Your task to perform on an android device: Go to calendar. Show me events next week Image 0: 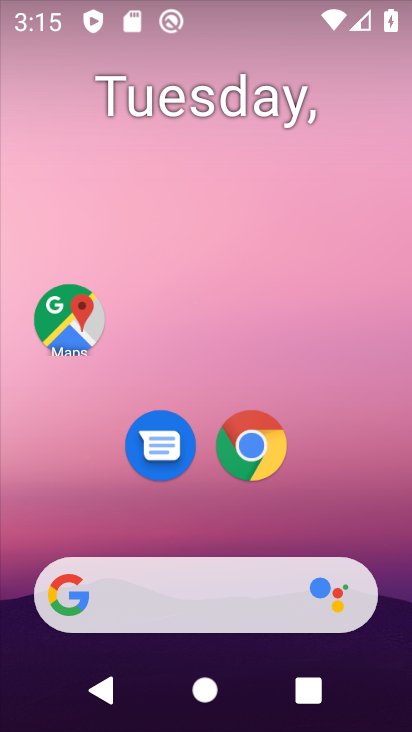
Step 0: press home button
Your task to perform on an android device: Go to calendar. Show me events next week Image 1: 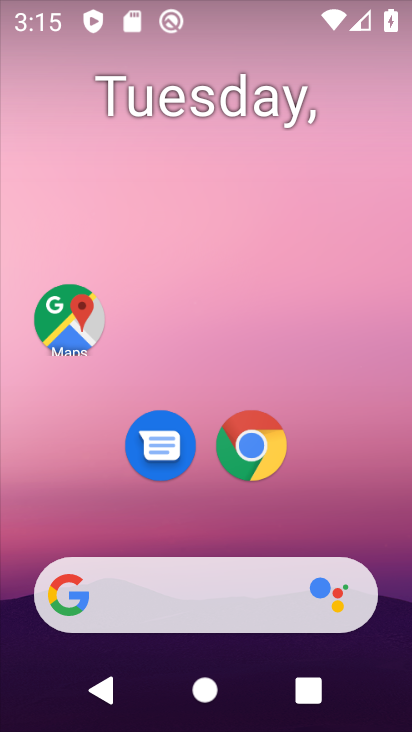
Step 1: drag from (342, 513) to (330, 98)
Your task to perform on an android device: Go to calendar. Show me events next week Image 2: 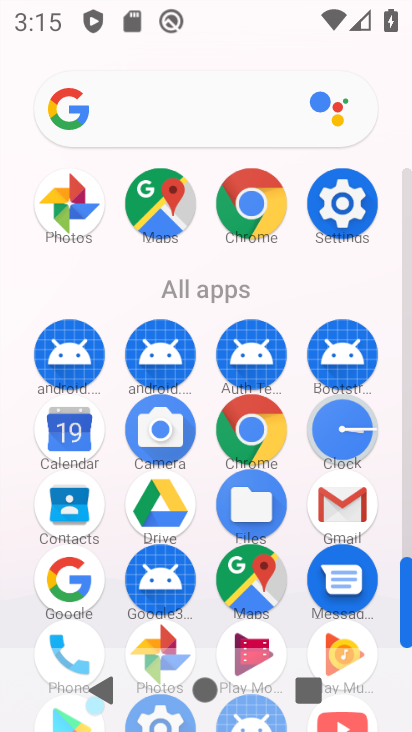
Step 2: click (69, 430)
Your task to perform on an android device: Go to calendar. Show me events next week Image 3: 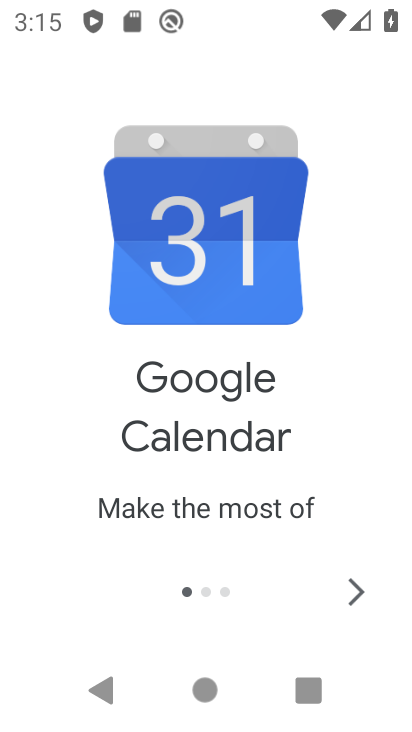
Step 3: click (351, 591)
Your task to perform on an android device: Go to calendar. Show me events next week Image 4: 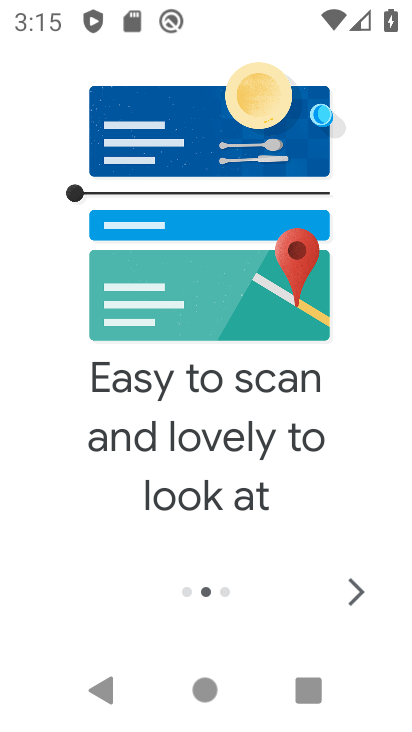
Step 4: click (351, 591)
Your task to perform on an android device: Go to calendar. Show me events next week Image 5: 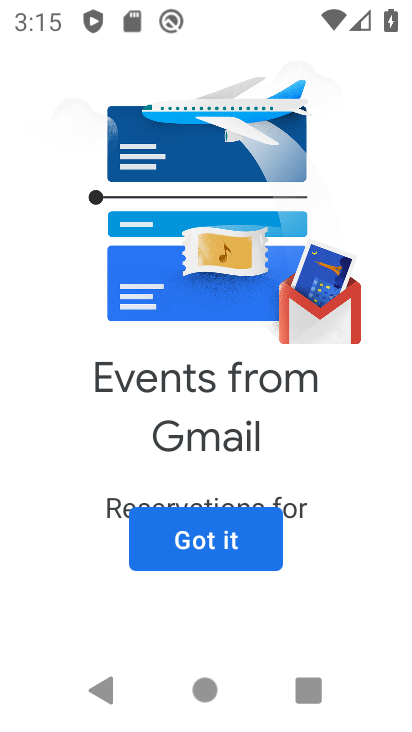
Step 5: click (268, 559)
Your task to perform on an android device: Go to calendar. Show me events next week Image 6: 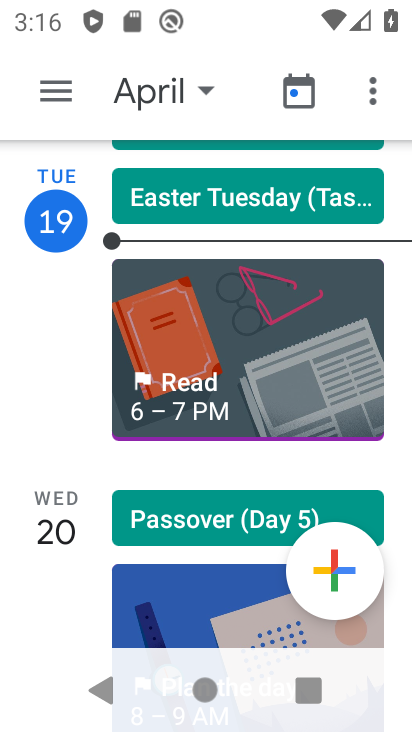
Step 6: click (175, 105)
Your task to perform on an android device: Go to calendar. Show me events next week Image 7: 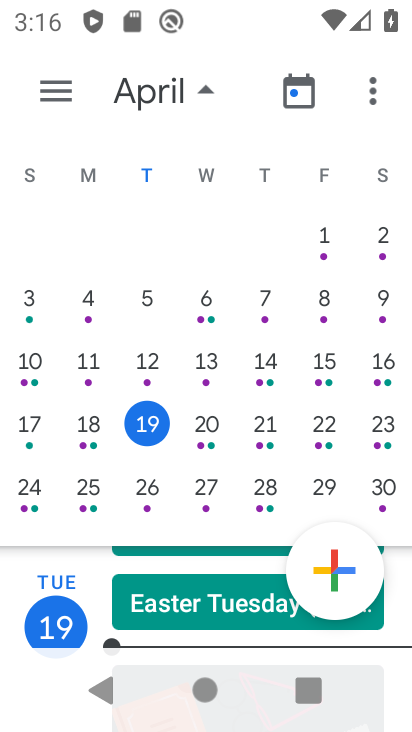
Step 7: click (37, 501)
Your task to perform on an android device: Go to calendar. Show me events next week Image 8: 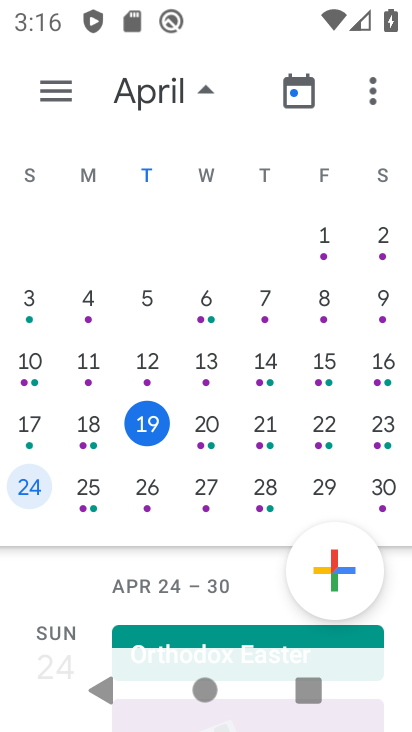
Step 8: click (81, 500)
Your task to perform on an android device: Go to calendar. Show me events next week Image 9: 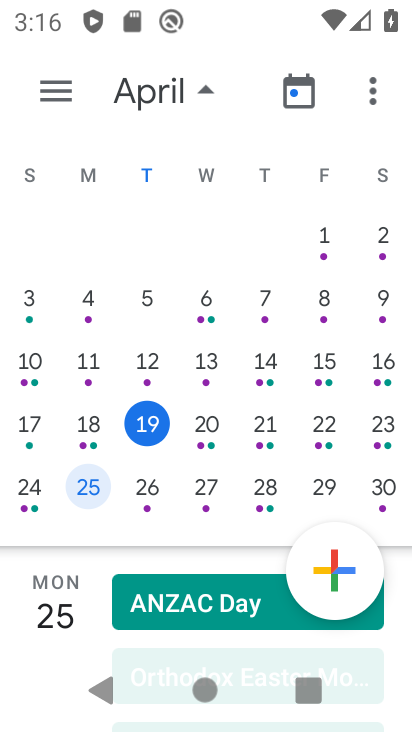
Step 9: click (139, 503)
Your task to perform on an android device: Go to calendar. Show me events next week Image 10: 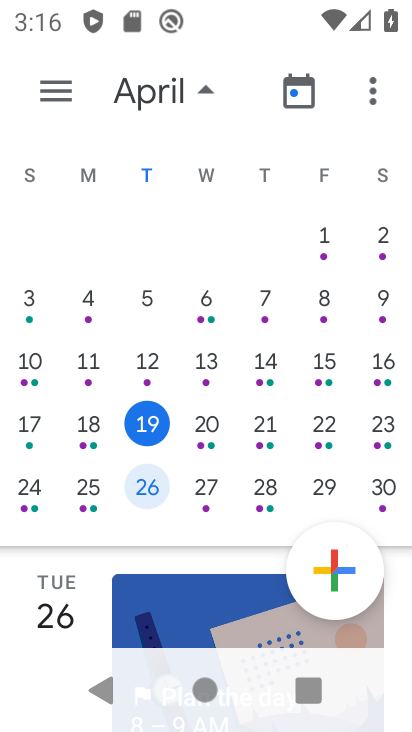
Step 10: click (202, 509)
Your task to perform on an android device: Go to calendar. Show me events next week Image 11: 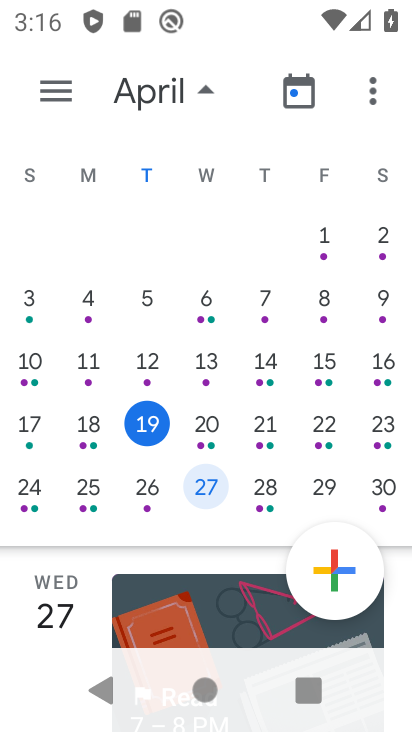
Step 11: click (261, 502)
Your task to perform on an android device: Go to calendar. Show me events next week Image 12: 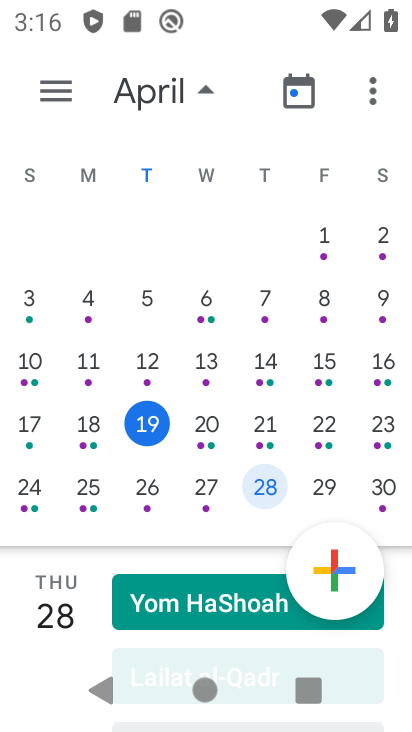
Step 12: click (347, 484)
Your task to perform on an android device: Go to calendar. Show me events next week Image 13: 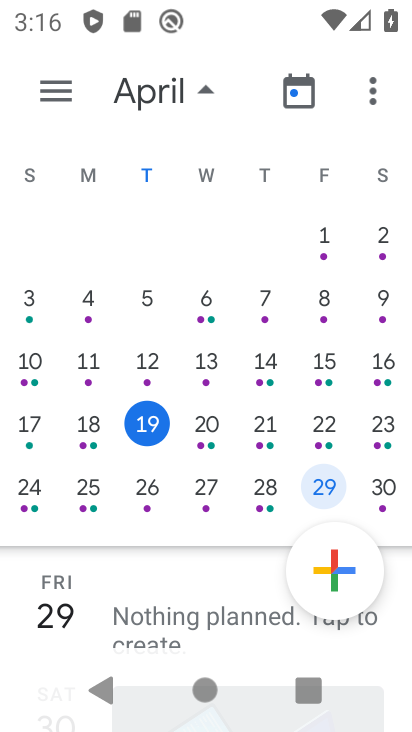
Step 13: click (370, 497)
Your task to perform on an android device: Go to calendar. Show me events next week Image 14: 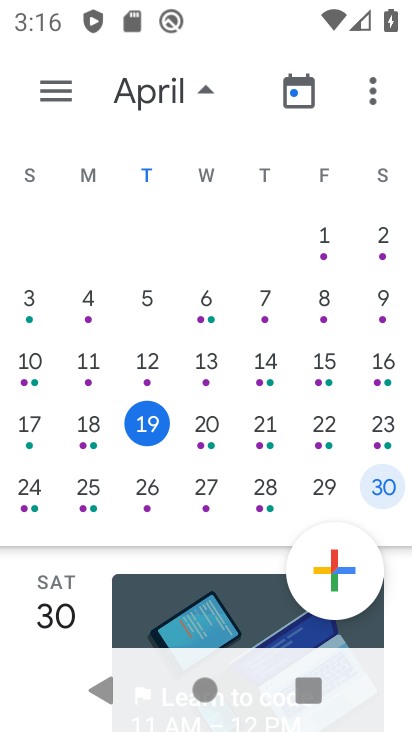
Step 14: task complete